Your task to perform on an android device: Turn off the flashlight Image 0: 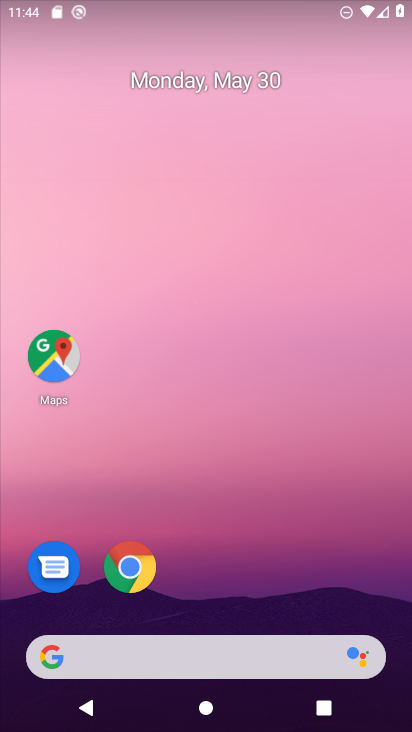
Step 0: drag from (185, 521) to (89, 9)
Your task to perform on an android device: Turn off the flashlight Image 1: 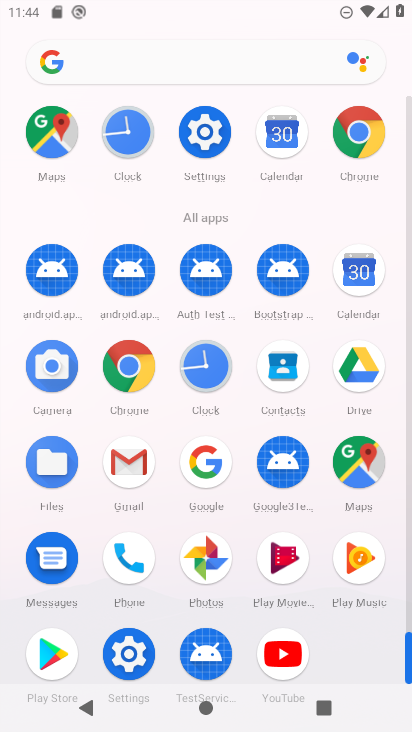
Step 1: drag from (6, 488) to (3, 136)
Your task to perform on an android device: Turn off the flashlight Image 2: 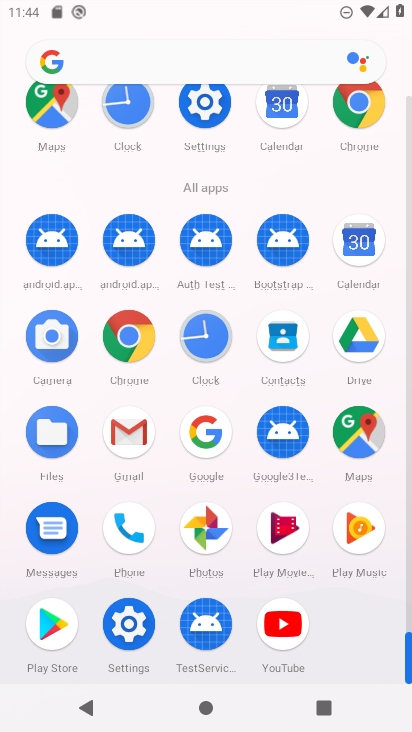
Step 2: click (131, 619)
Your task to perform on an android device: Turn off the flashlight Image 3: 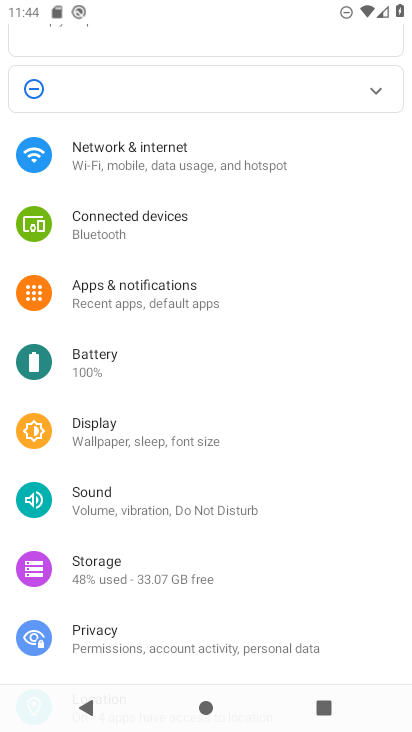
Step 3: drag from (300, 110) to (295, 587)
Your task to perform on an android device: Turn off the flashlight Image 4: 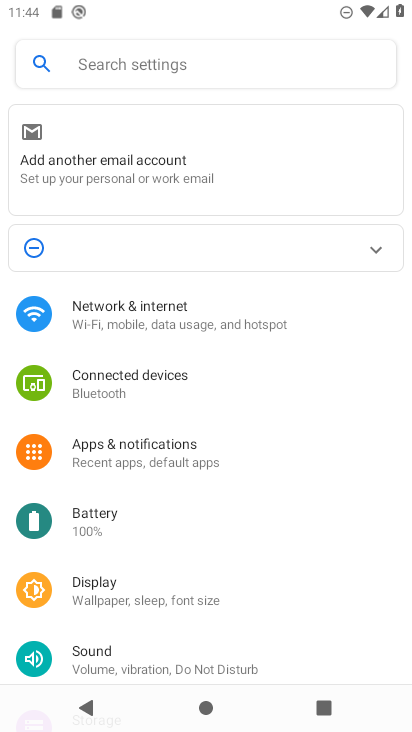
Step 4: drag from (316, 613) to (298, 259)
Your task to perform on an android device: Turn off the flashlight Image 5: 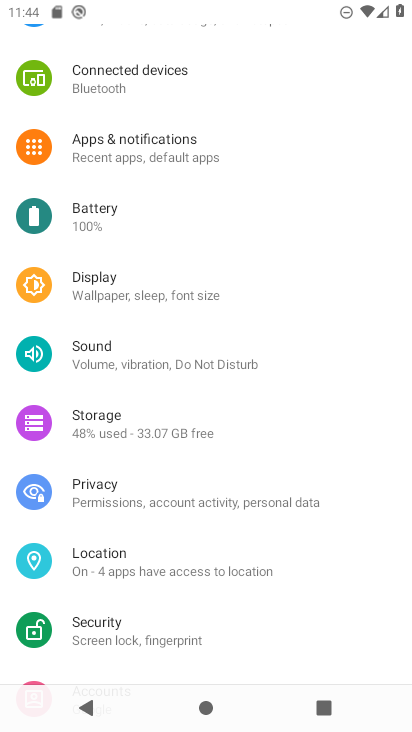
Step 5: drag from (294, 557) to (282, 36)
Your task to perform on an android device: Turn off the flashlight Image 6: 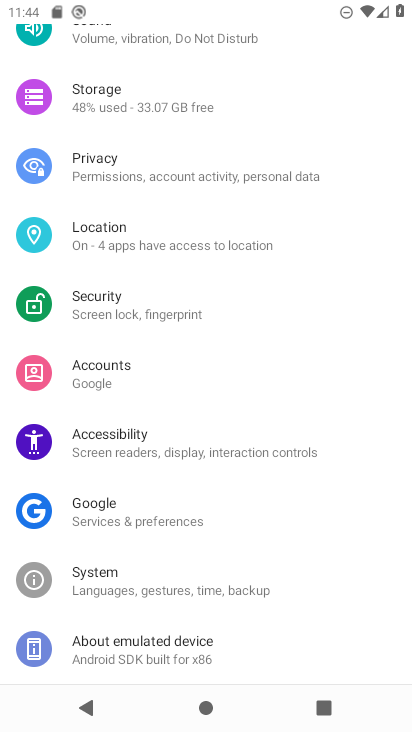
Step 6: drag from (303, 129) to (270, 609)
Your task to perform on an android device: Turn off the flashlight Image 7: 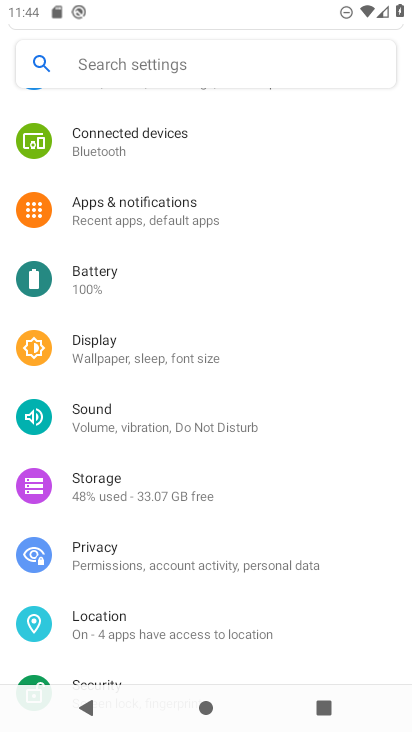
Step 7: drag from (272, 207) to (272, 555)
Your task to perform on an android device: Turn off the flashlight Image 8: 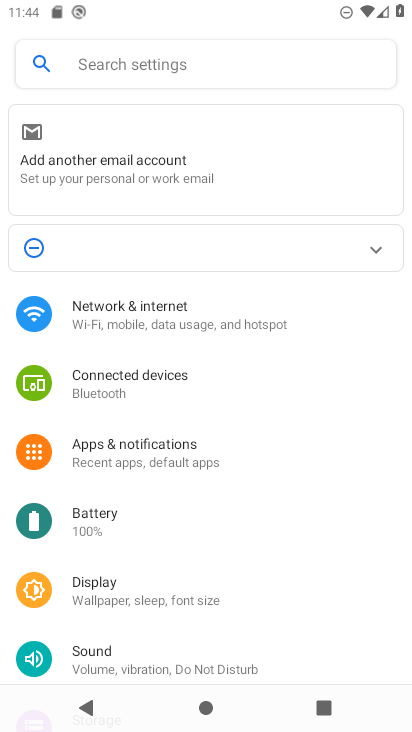
Step 8: click (230, 309)
Your task to perform on an android device: Turn off the flashlight Image 9: 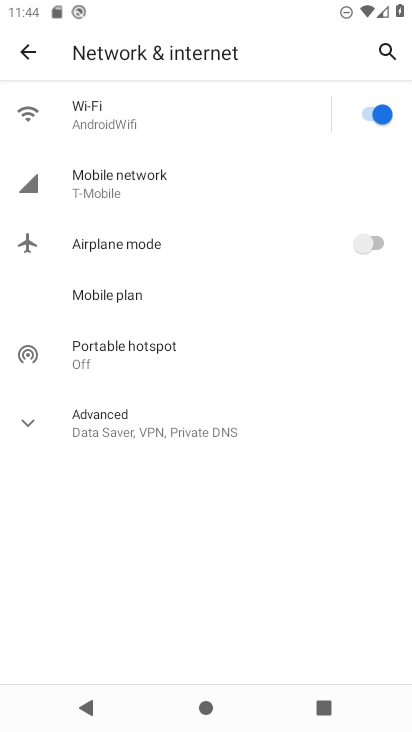
Step 9: task complete